Your task to perform on an android device: change the clock display to analog Image 0: 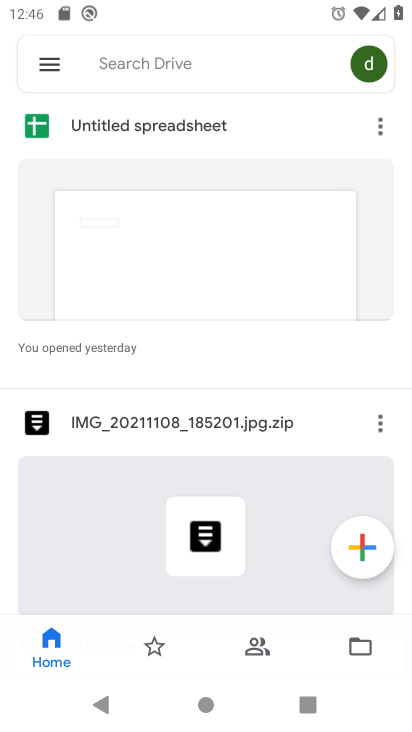
Step 0: press home button
Your task to perform on an android device: change the clock display to analog Image 1: 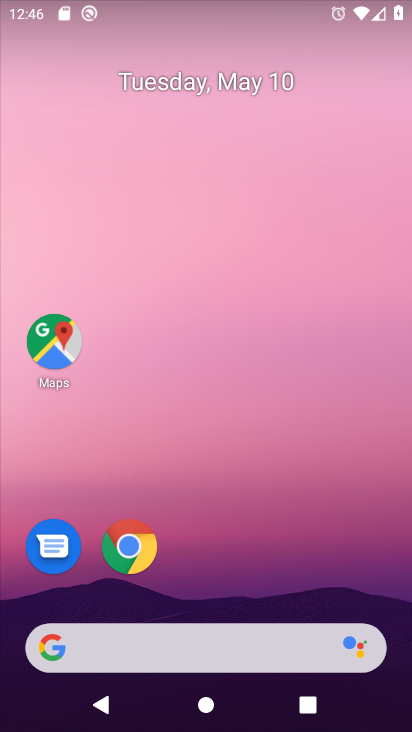
Step 1: drag from (267, 584) to (228, 234)
Your task to perform on an android device: change the clock display to analog Image 2: 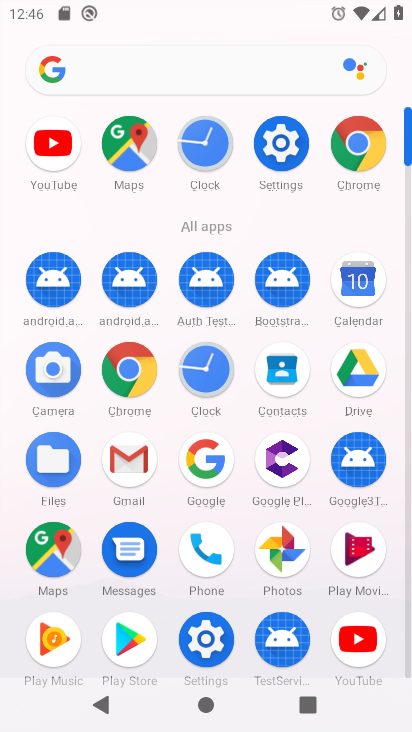
Step 2: click (207, 118)
Your task to perform on an android device: change the clock display to analog Image 3: 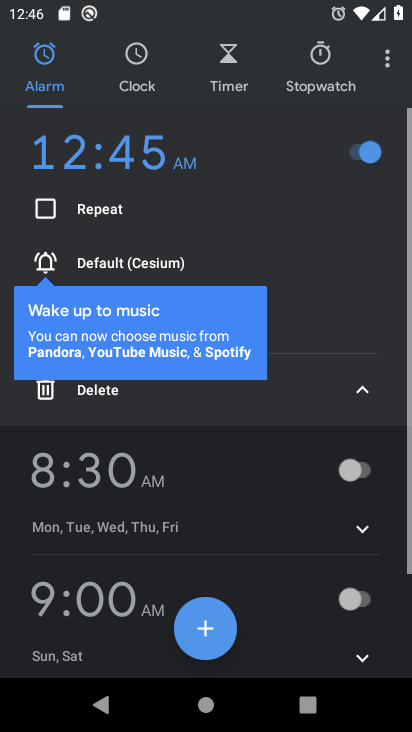
Step 3: click (382, 61)
Your task to perform on an android device: change the clock display to analog Image 4: 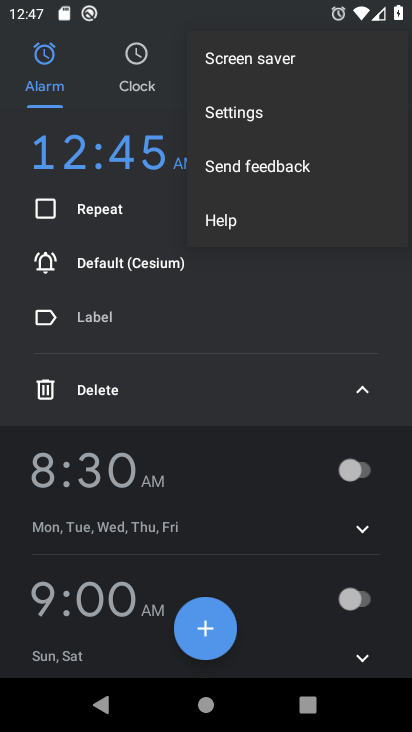
Step 4: click (270, 118)
Your task to perform on an android device: change the clock display to analog Image 5: 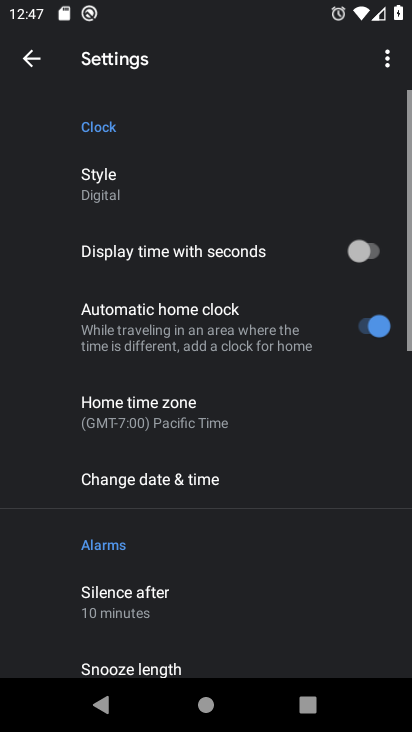
Step 5: click (132, 176)
Your task to perform on an android device: change the clock display to analog Image 6: 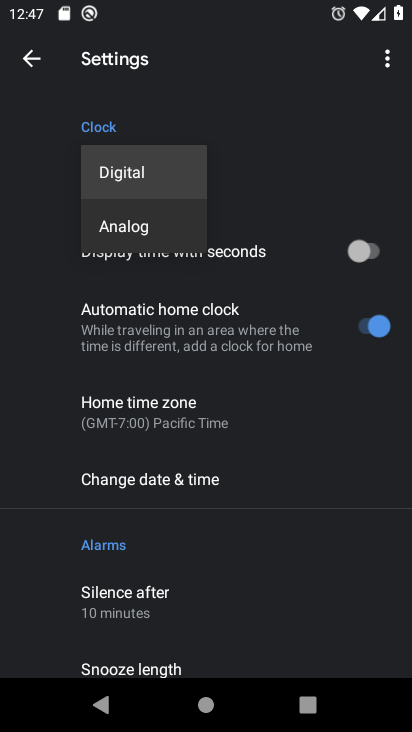
Step 6: click (139, 229)
Your task to perform on an android device: change the clock display to analog Image 7: 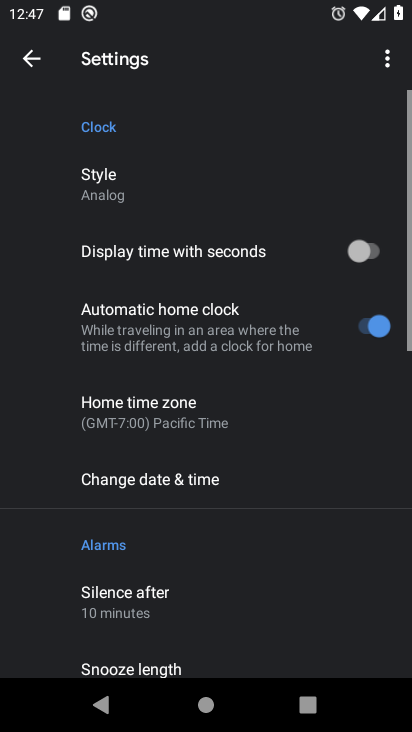
Step 7: task complete